Your task to perform on an android device: Open Google Maps and go to "Timeline" Image 0: 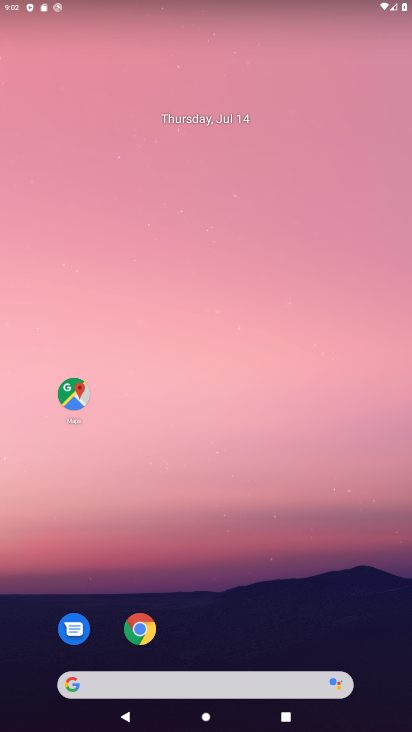
Step 0: drag from (249, 615) to (244, 212)
Your task to perform on an android device: Open Google Maps and go to "Timeline" Image 1: 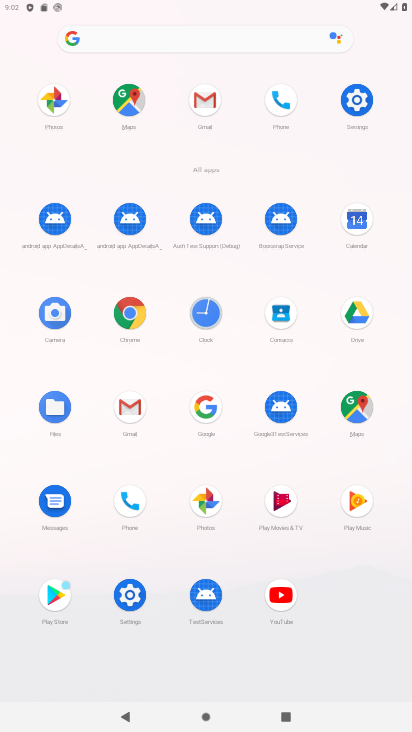
Step 1: click (349, 409)
Your task to perform on an android device: Open Google Maps and go to "Timeline" Image 2: 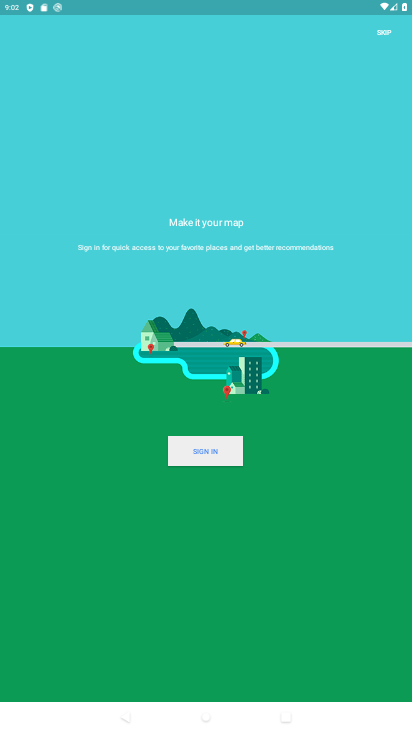
Step 2: click (204, 441)
Your task to perform on an android device: Open Google Maps and go to "Timeline" Image 3: 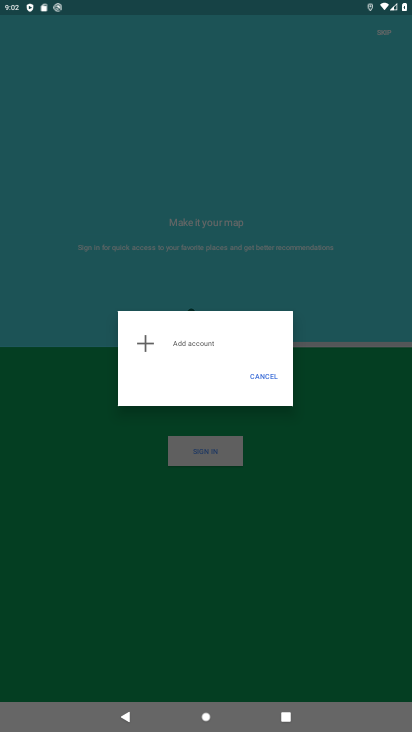
Step 3: task complete